Your task to perform on an android device: add a label to a message in the gmail app Image 0: 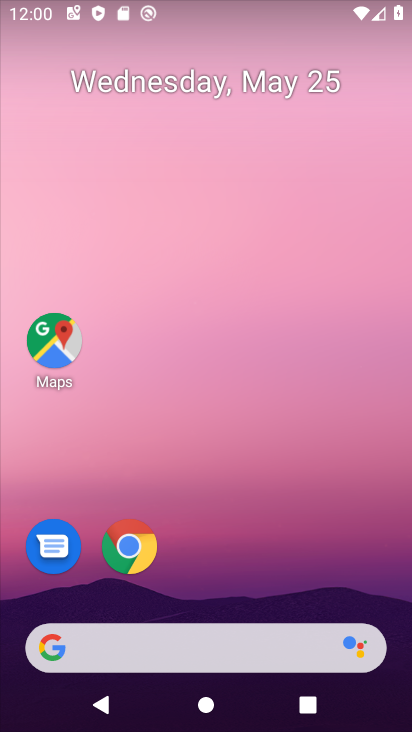
Step 0: drag from (376, 603) to (288, 118)
Your task to perform on an android device: add a label to a message in the gmail app Image 1: 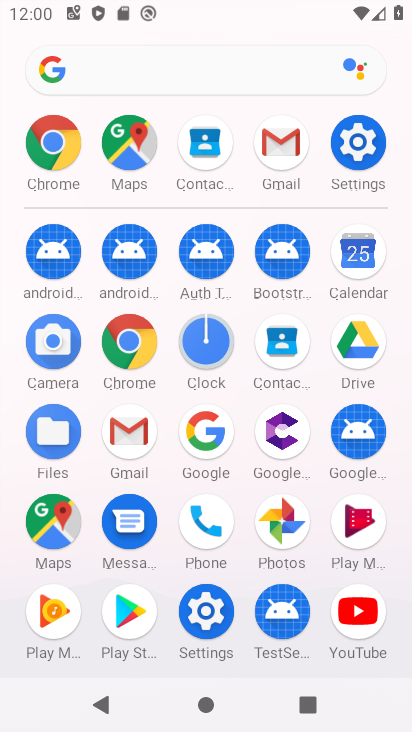
Step 1: click (294, 167)
Your task to perform on an android device: add a label to a message in the gmail app Image 2: 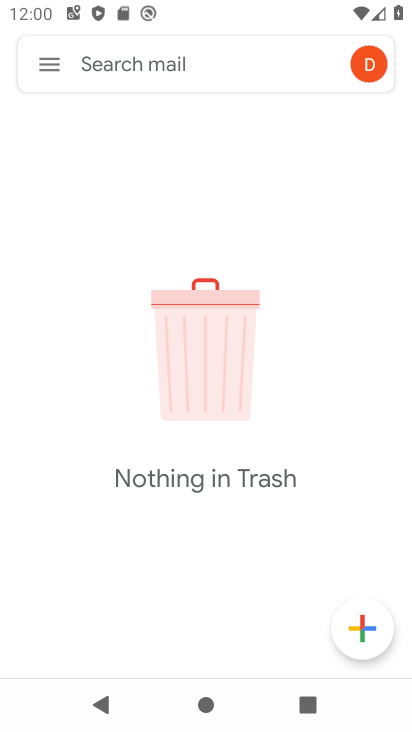
Step 2: click (57, 73)
Your task to perform on an android device: add a label to a message in the gmail app Image 3: 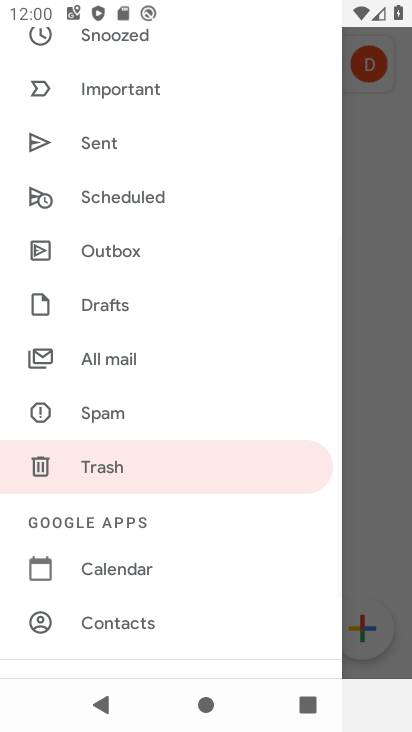
Step 3: click (156, 357)
Your task to perform on an android device: add a label to a message in the gmail app Image 4: 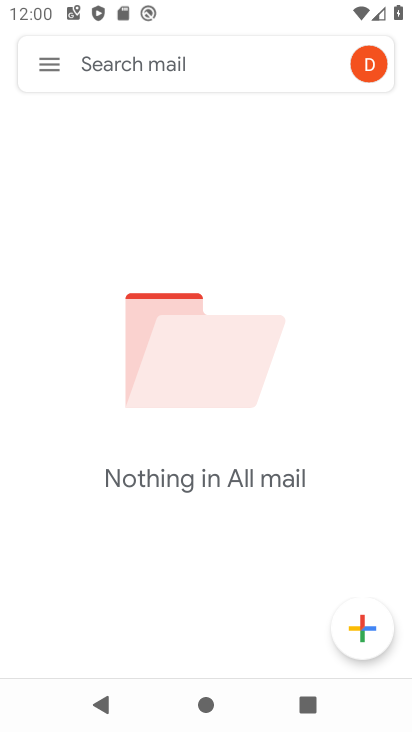
Step 4: task complete